Your task to perform on an android device: Search for sushi restaurants on Maps Image 0: 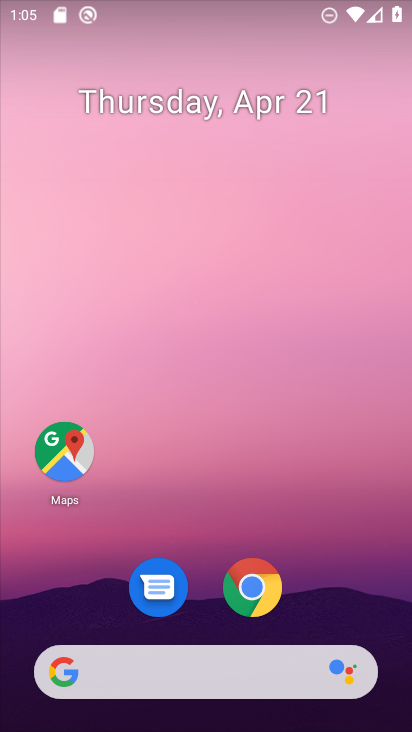
Step 0: click (66, 460)
Your task to perform on an android device: Search for sushi restaurants on Maps Image 1: 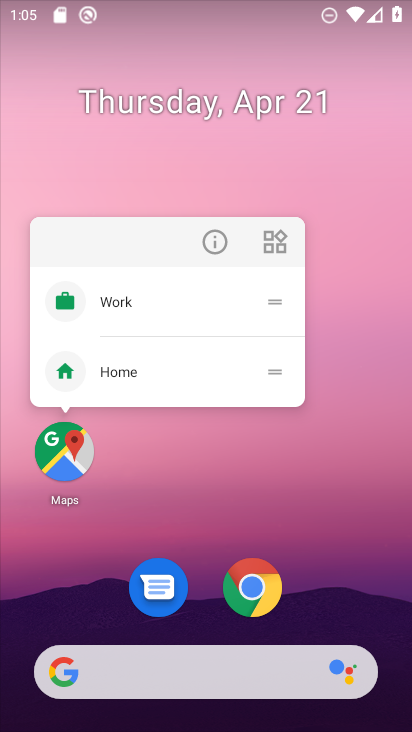
Step 1: click (60, 465)
Your task to perform on an android device: Search for sushi restaurants on Maps Image 2: 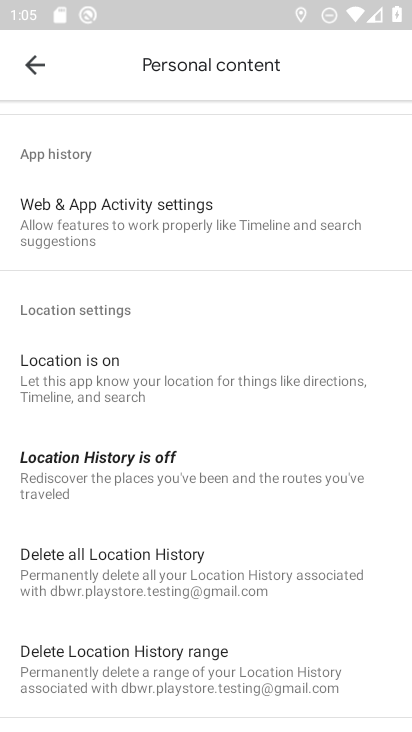
Step 2: press home button
Your task to perform on an android device: Search for sushi restaurants on Maps Image 3: 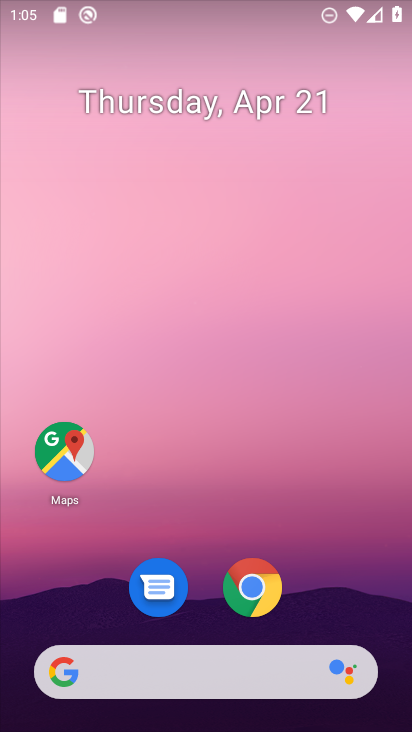
Step 3: click (54, 452)
Your task to perform on an android device: Search for sushi restaurants on Maps Image 4: 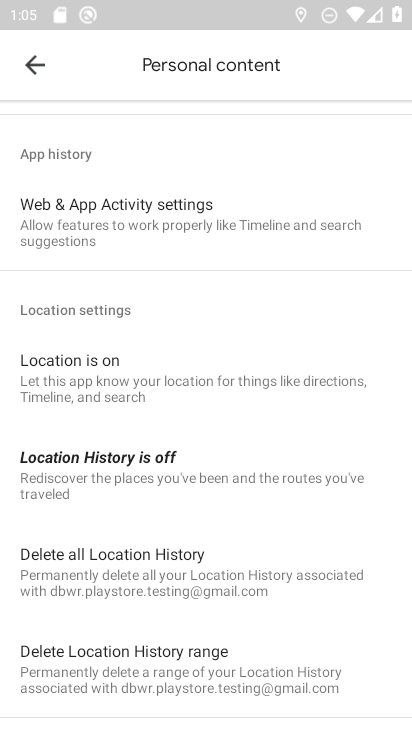
Step 4: click (34, 71)
Your task to perform on an android device: Search for sushi restaurants on Maps Image 5: 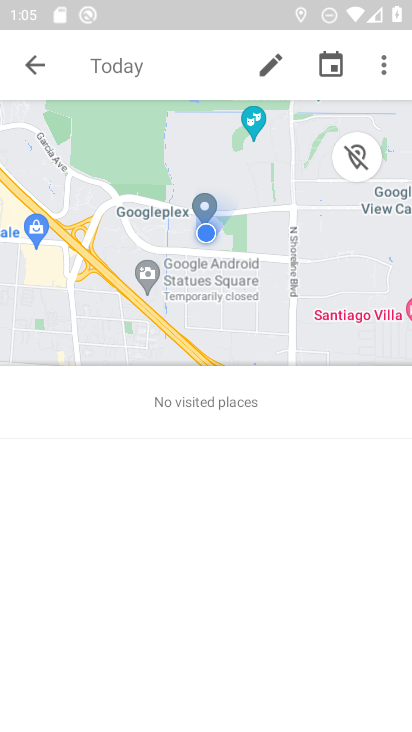
Step 5: click (42, 70)
Your task to perform on an android device: Search for sushi restaurants on Maps Image 6: 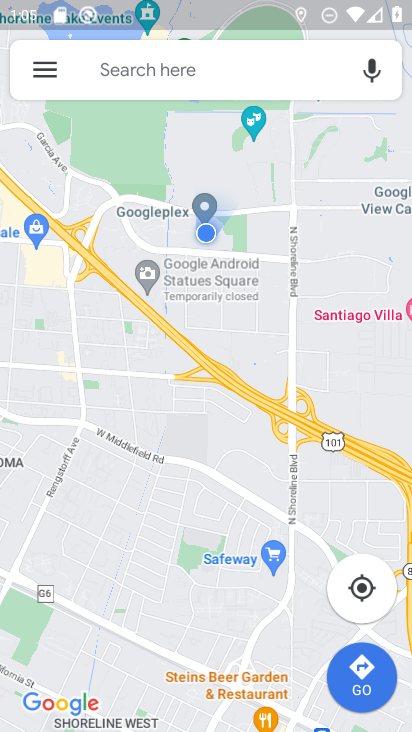
Step 6: click (209, 73)
Your task to perform on an android device: Search for sushi restaurants on Maps Image 7: 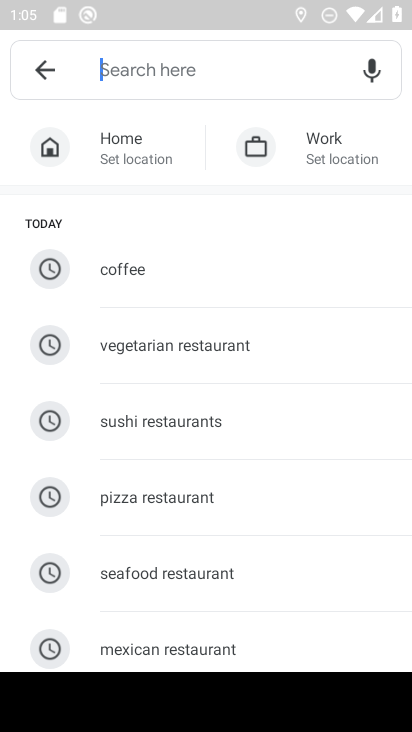
Step 7: click (145, 414)
Your task to perform on an android device: Search for sushi restaurants on Maps Image 8: 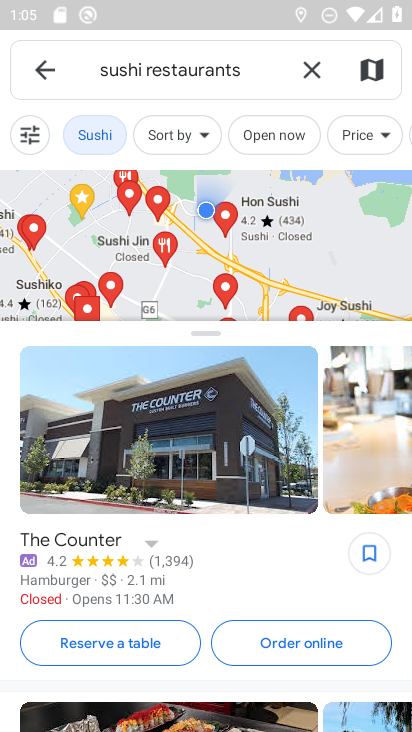
Step 8: task complete